Your task to perform on an android device: allow notifications from all sites in the chrome app Image 0: 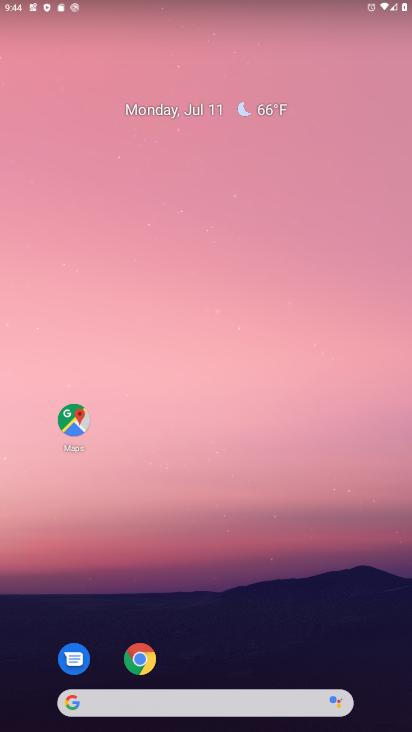
Step 0: drag from (307, 637) to (326, 103)
Your task to perform on an android device: allow notifications from all sites in the chrome app Image 1: 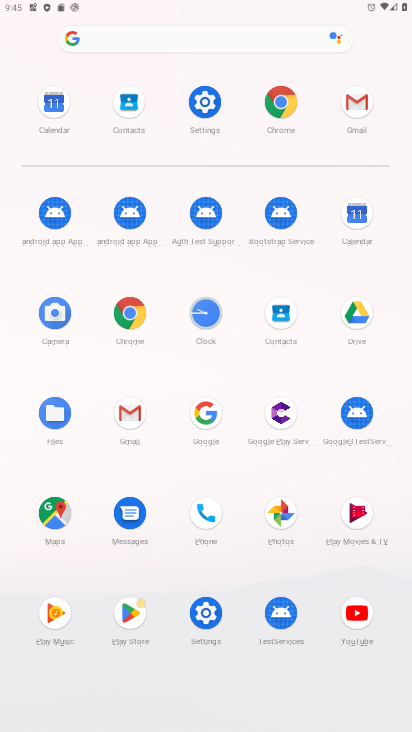
Step 1: click (128, 309)
Your task to perform on an android device: allow notifications from all sites in the chrome app Image 2: 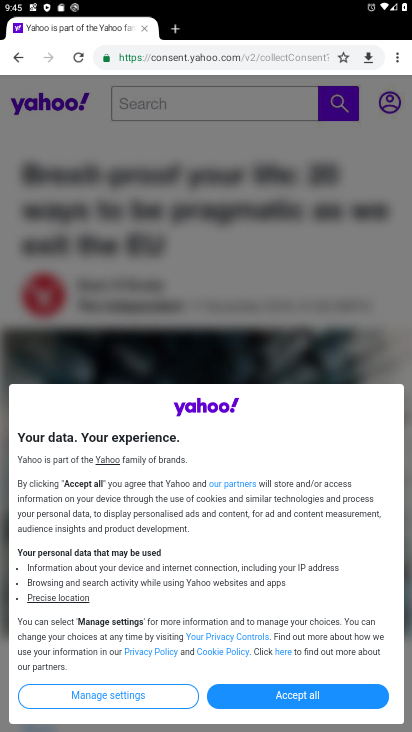
Step 2: click (398, 61)
Your task to perform on an android device: allow notifications from all sites in the chrome app Image 3: 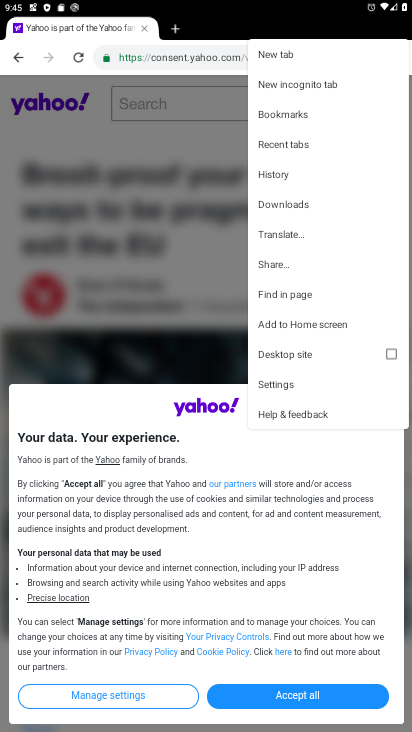
Step 3: click (286, 383)
Your task to perform on an android device: allow notifications from all sites in the chrome app Image 4: 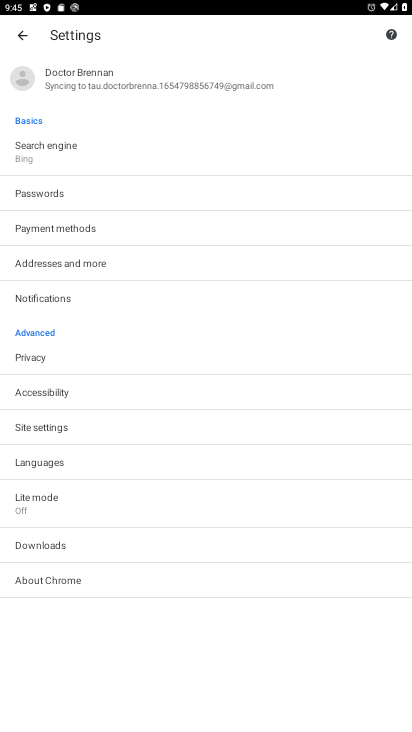
Step 4: click (204, 421)
Your task to perform on an android device: allow notifications from all sites in the chrome app Image 5: 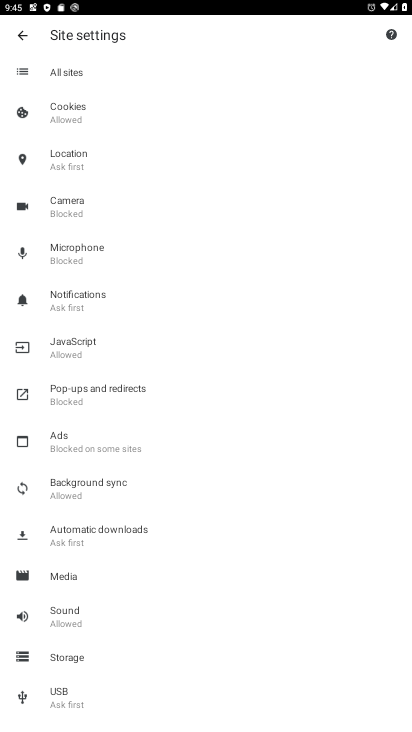
Step 5: click (99, 308)
Your task to perform on an android device: allow notifications from all sites in the chrome app Image 6: 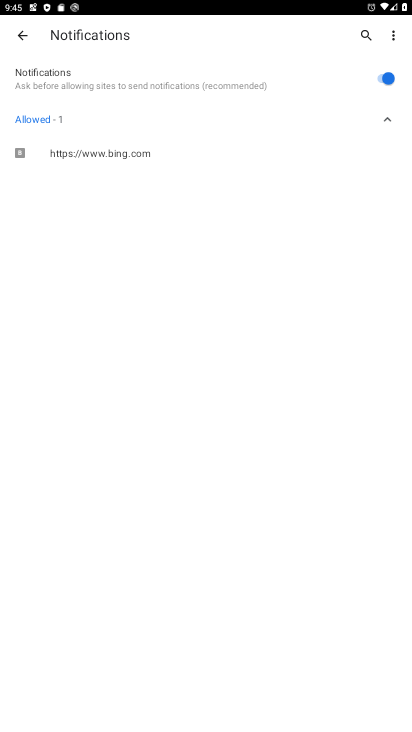
Step 6: task complete